Your task to perform on an android device: add a contact in the contacts app Image 0: 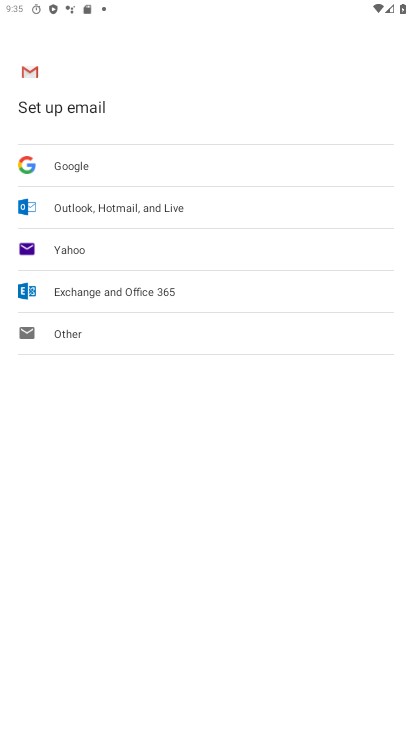
Step 0: click (319, 215)
Your task to perform on an android device: add a contact in the contacts app Image 1: 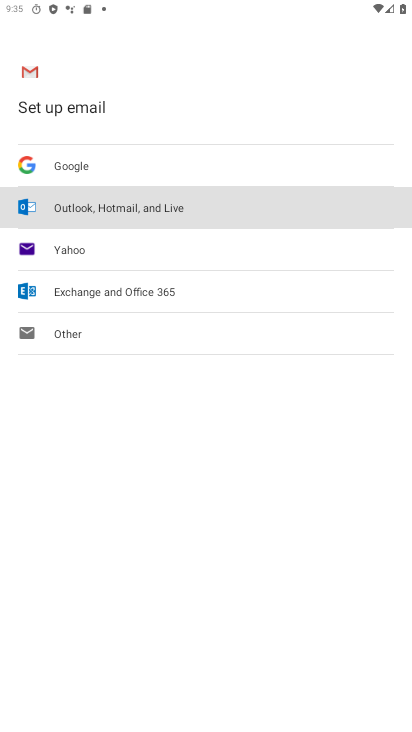
Step 1: press back button
Your task to perform on an android device: add a contact in the contacts app Image 2: 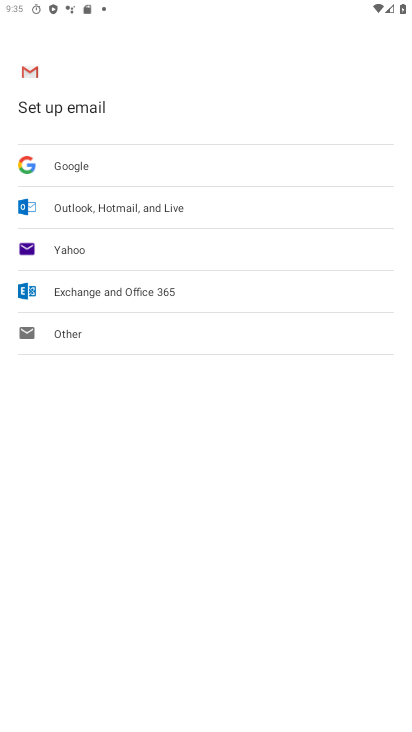
Step 2: press home button
Your task to perform on an android device: add a contact in the contacts app Image 3: 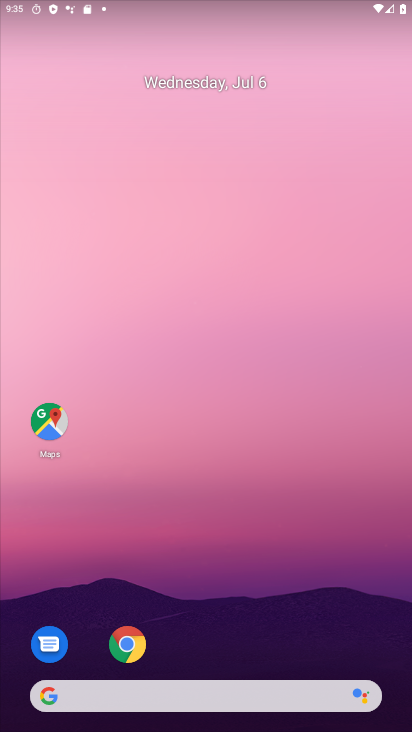
Step 3: drag from (256, 707) to (153, 214)
Your task to perform on an android device: add a contact in the contacts app Image 4: 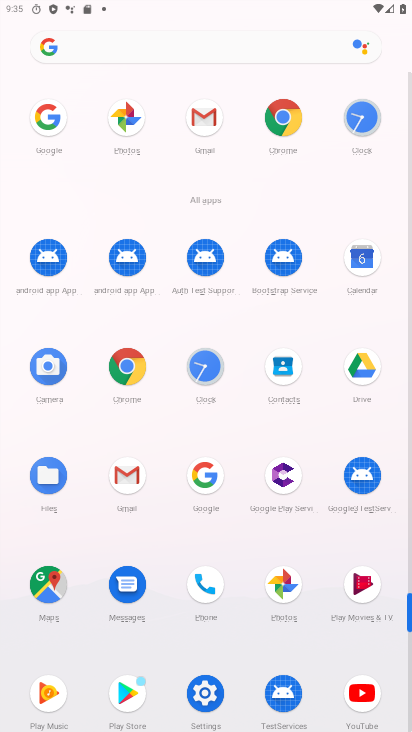
Step 4: click (280, 370)
Your task to perform on an android device: add a contact in the contacts app Image 5: 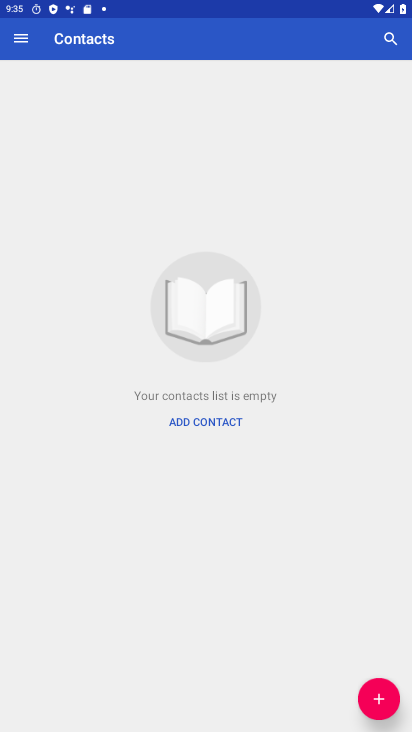
Step 5: click (380, 688)
Your task to perform on an android device: add a contact in the contacts app Image 6: 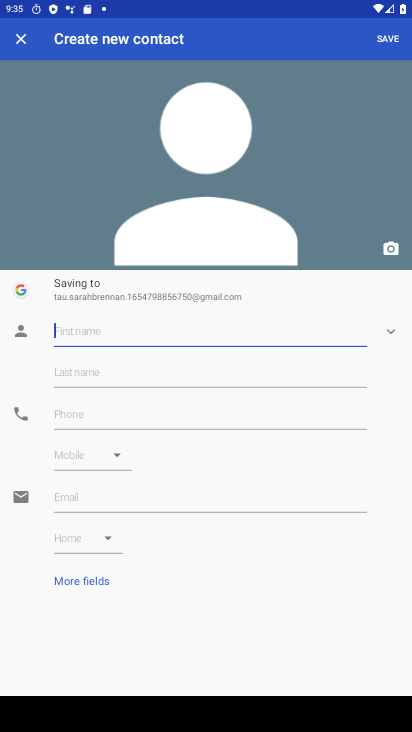
Step 6: type "nm  nbcv "
Your task to perform on an android device: add a contact in the contacts app Image 7: 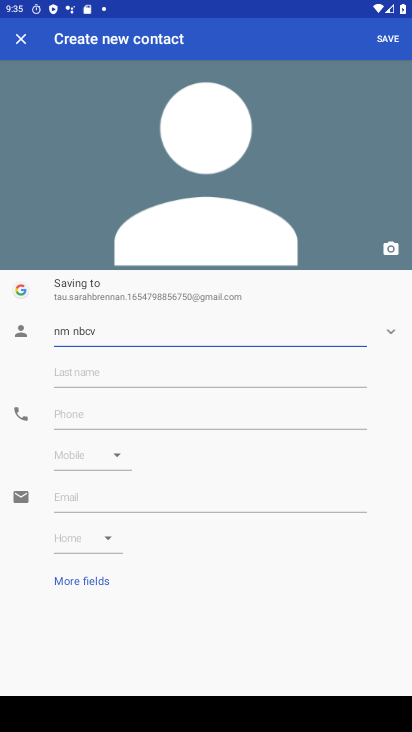
Step 7: click (71, 422)
Your task to perform on an android device: add a contact in the contacts app Image 8: 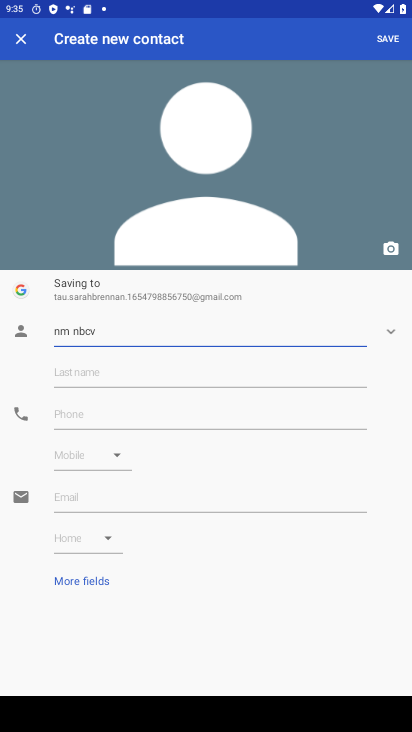
Step 8: click (71, 422)
Your task to perform on an android device: add a contact in the contacts app Image 9: 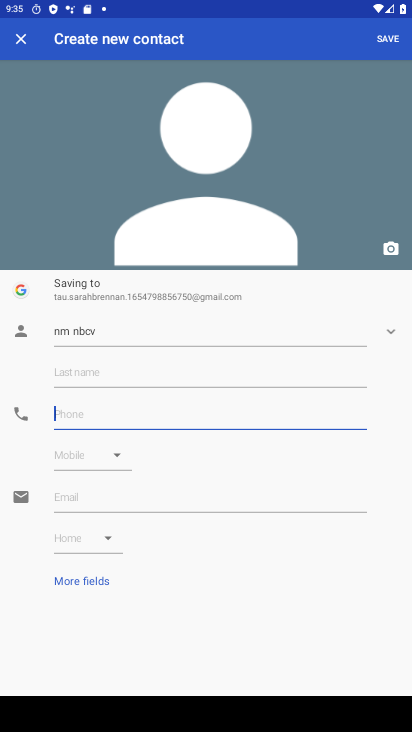
Step 9: click (71, 422)
Your task to perform on an android device: add a contact in the contacts app Image 10: 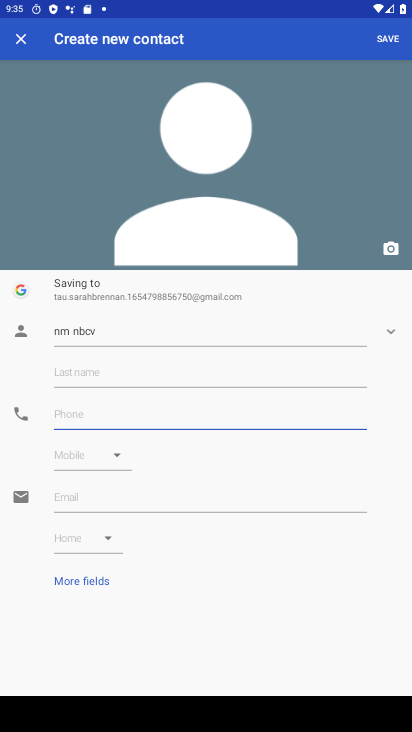
Step 10: click (71, 422)
Your task to perform on an android device: add a contact in the contacts app Image 11: 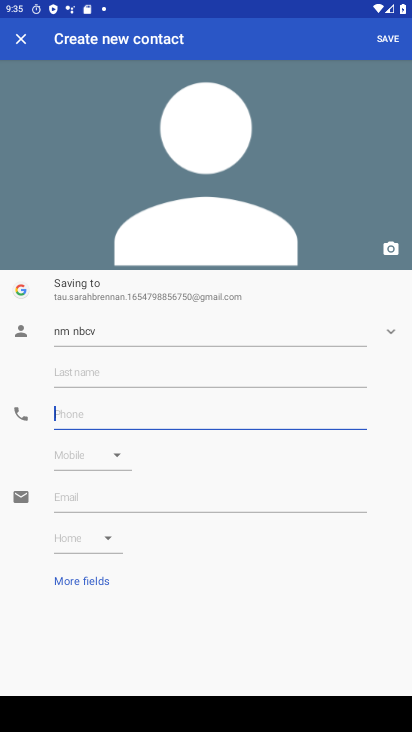
Step 11: type "7874775855866443"
Your task to perform on an android device: add a contact in the contacts app Image 12: 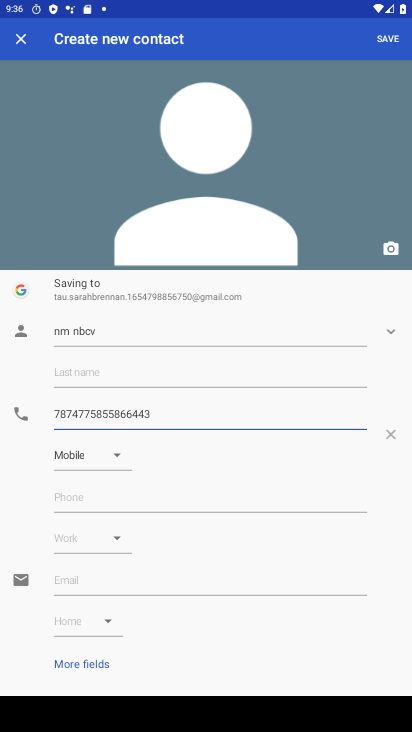
Step 12: task complete